Your task to perform on an android device: Open Google Chrome Image 0: 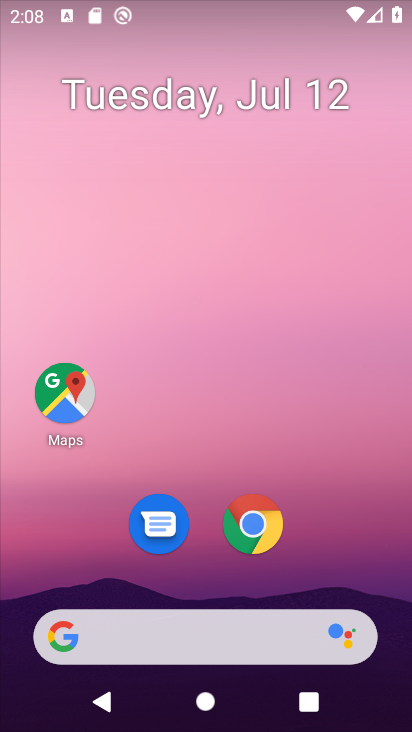
Step 0: click (260, 516)
Your task to perform on an android device: Open Google Chrome Image 1: 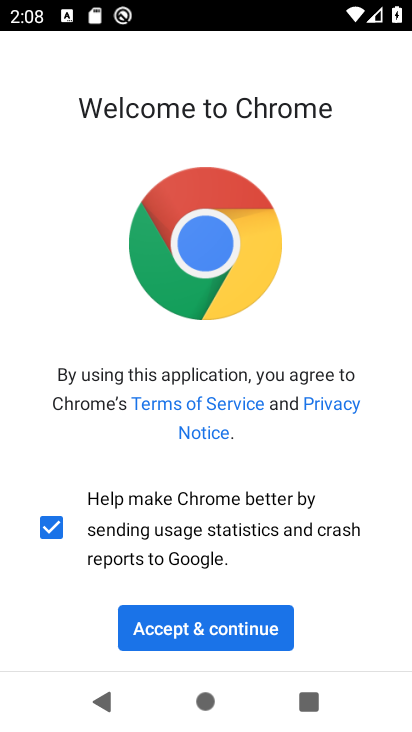
Step 1: click (251, 620)
Your task to perform on an android device: Open Google Chrome Image 2: 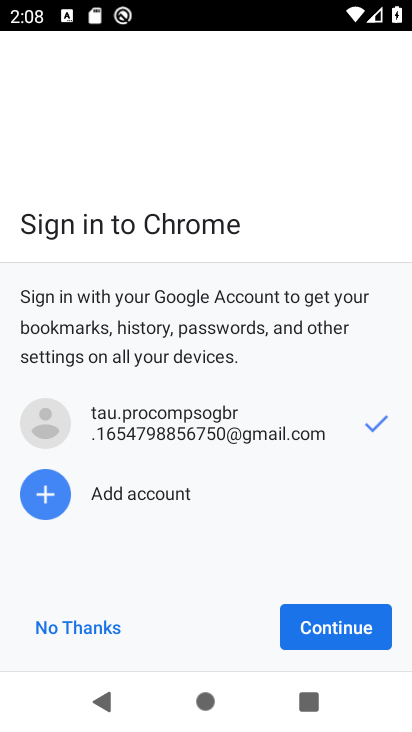
Step 2: click (295, 624)
Your task to perform on an android device: Open Google Chrome Image 3: 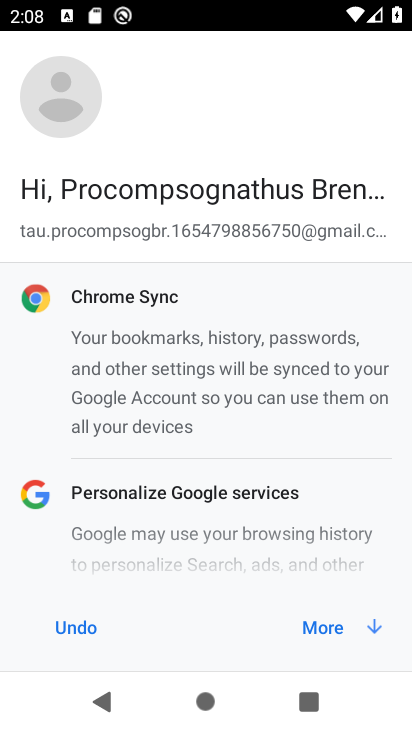
Step 3: click (316, 629)
Your task to perform on an android device: Open Google Chrome Image 4: 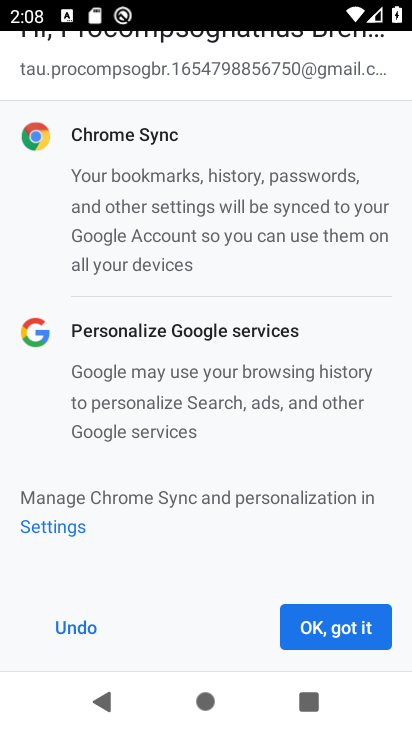
Step 4: click (316, 629)
Your task to perform on an android device: Open Google Chrome Image 5: 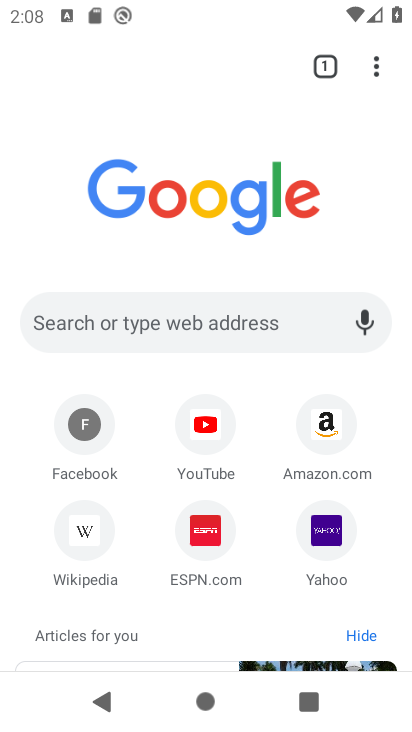
Step 5: task complete